Your task to perform on an android device: Go to battery settings Image 0: 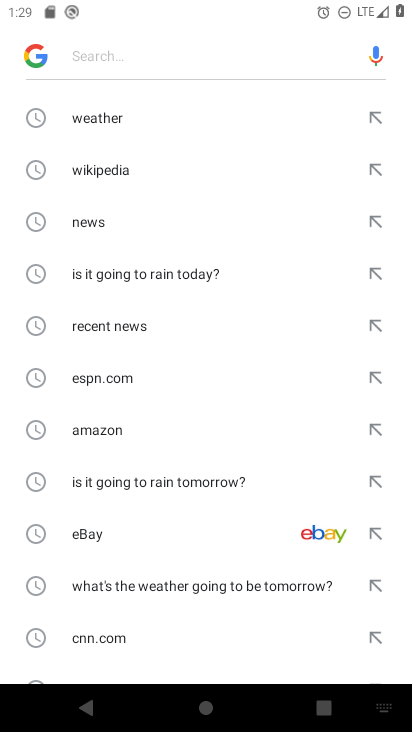
Step 0: press back button
Your task to perform on an android device: Go to battery settings Image 1: 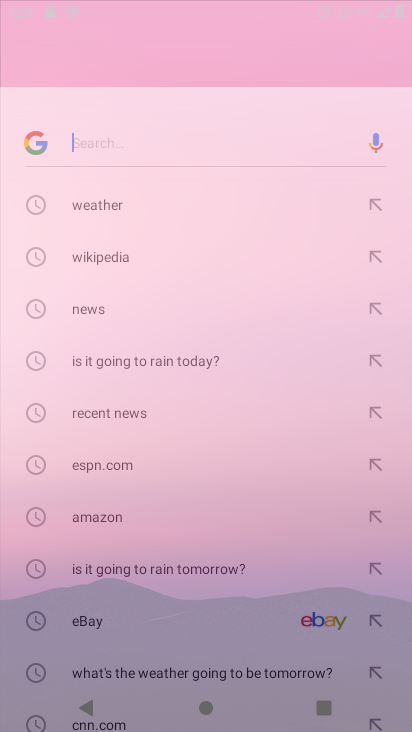
Step 1: press home button
Your task to perform on an android device: Go to battery settings Image 2: 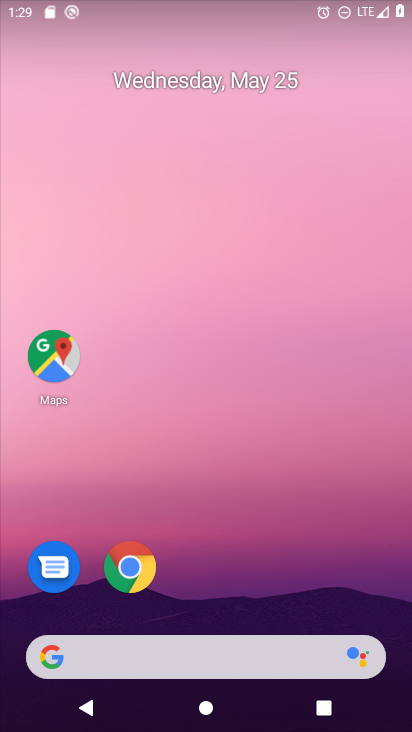
Step 2: drag from (386, 692) to (358, 314)
Your task to perform on an android device: Go to battery settings Image 3: 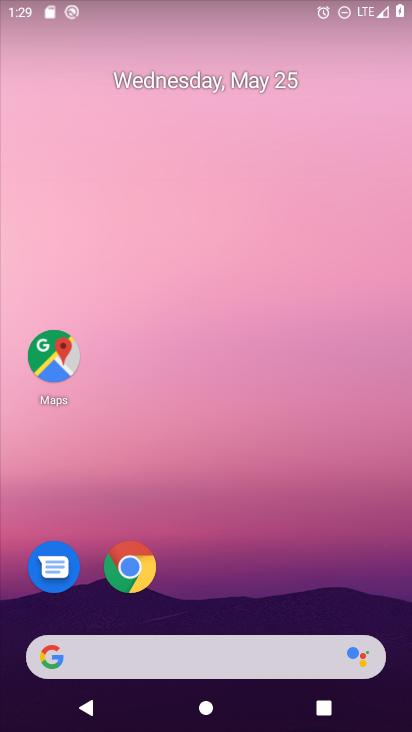
Step 3: drag from (395, 696) to (361, 135)
Your task to perform on an android device: Go to battery settings Image 4: 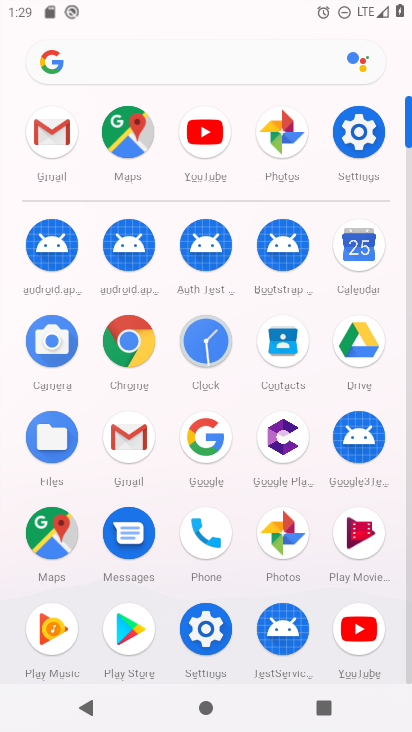
Step 4: click (360, 136)
Your task to perform on an android device: Go to battery settings Image 5: 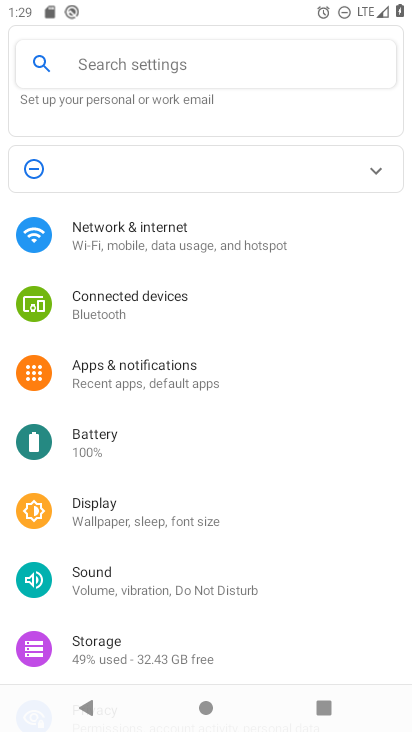
Step 5: click (85, 433)
Your task to perform on an android device: Go to battery settings Image 6: 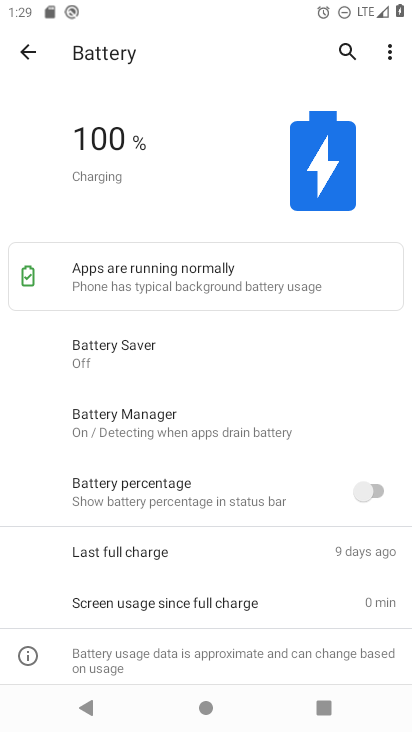
Step 6: task complete